Your task to perform on an android device: Open wifi settings Image 0: 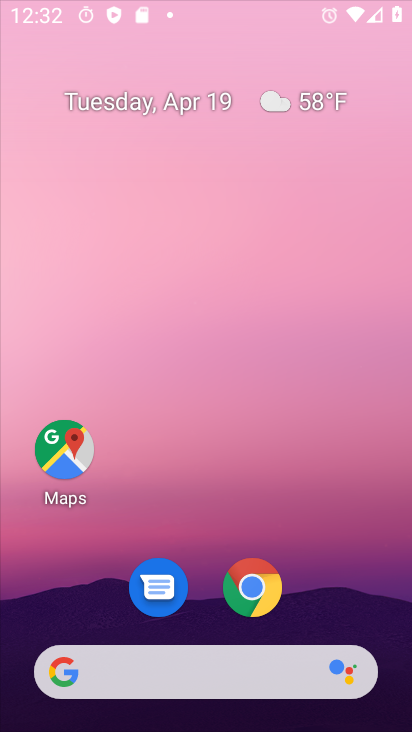
Step 0: drag from (365, 605) to (370, 69)
Your task to perform on an android device: Open wifi settings Image 1: 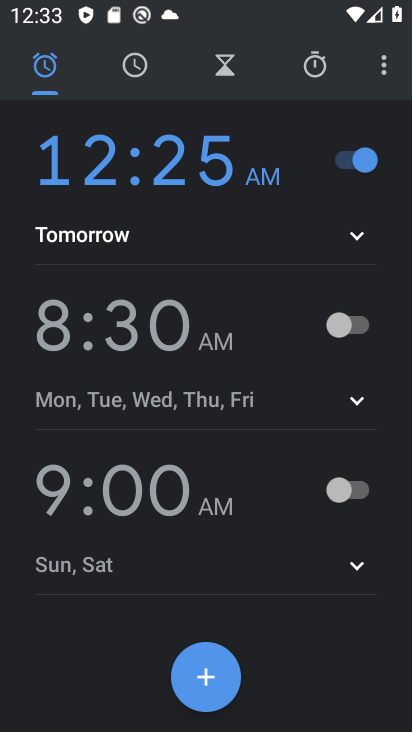
Step 1: press home button
Your task to perform on an android device: Open wifi settings Image 2: 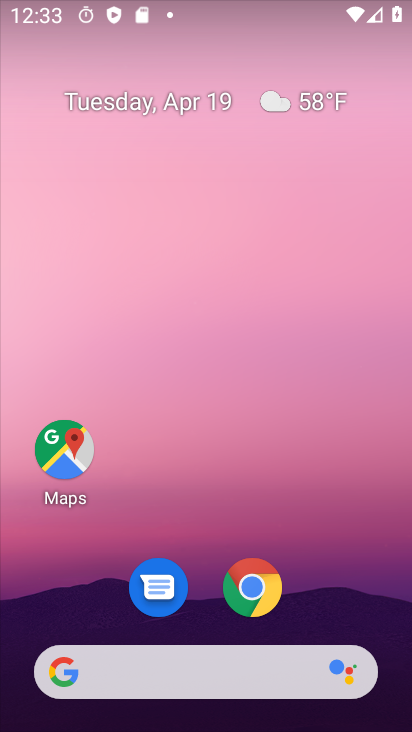
Step 2: drag from (348, 615) to (356, 191)
Your task to perform on an android device: Open wifi settings Image 3: 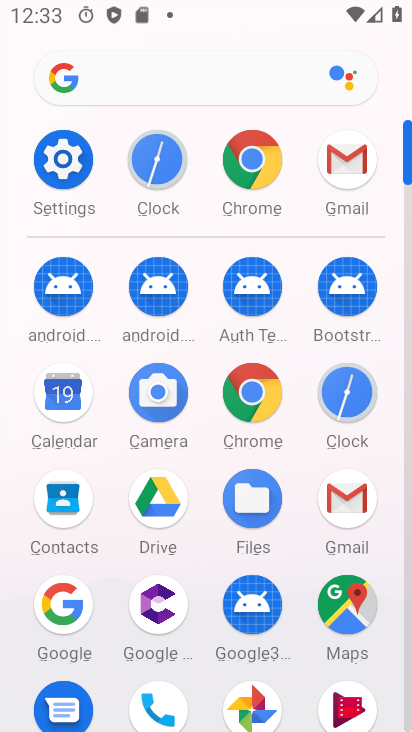
Step 3: click (72, 159)
Your task to perform on an android device: Open wifi settings Image 4: 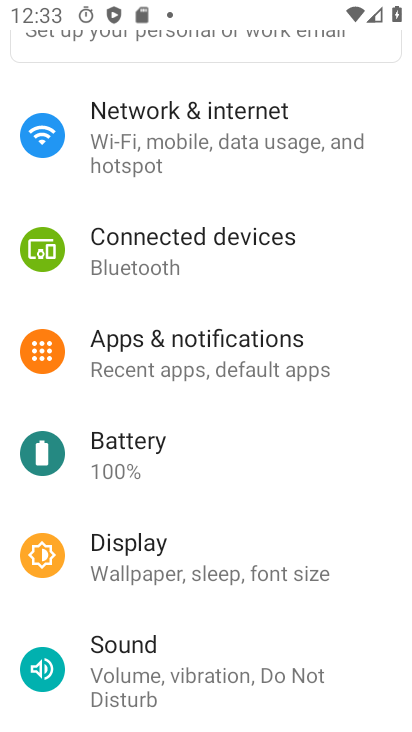
Step 4: click (247, 144)
Your task to perform on an android device: Open wifi settings Image 5: 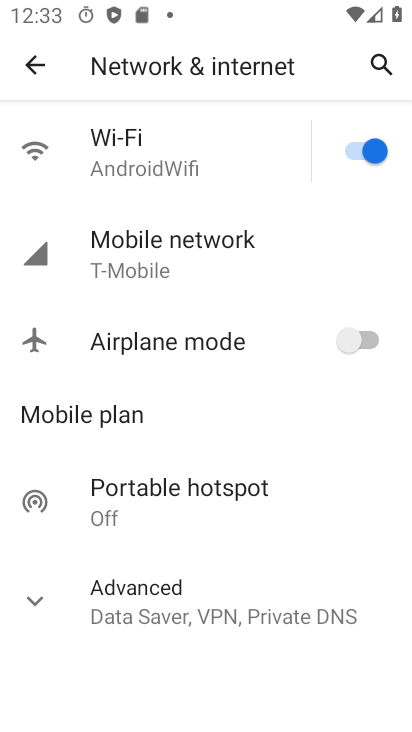
Step 5: click (241, 159)
Your task to perform on an android device: Open wifi settings Image 6: 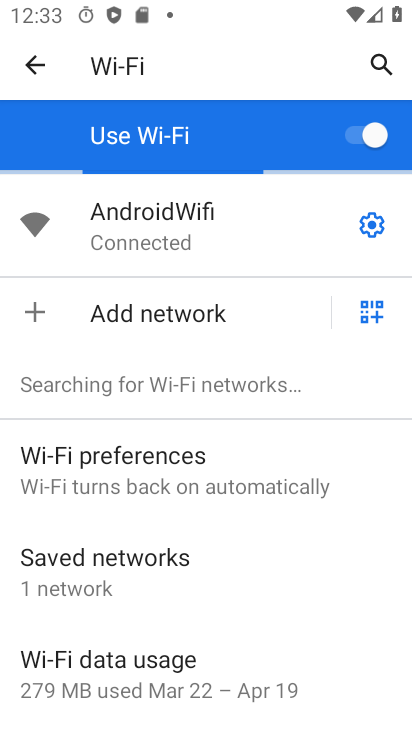
Step 6: task complete